Your task to perform on an android device: turn off improve location accuracy Image 0: 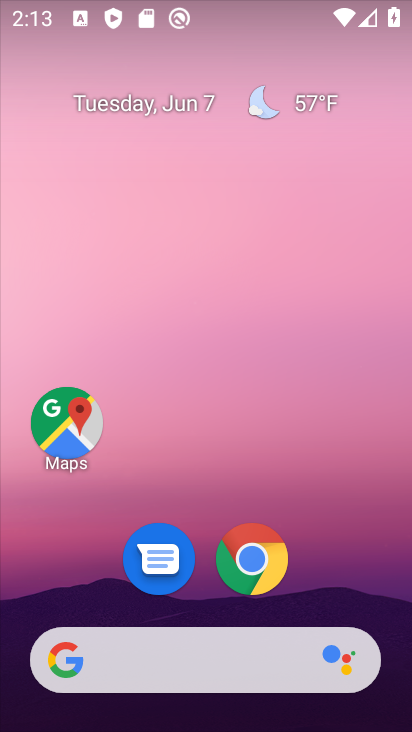
Step 0: click (209, 177)
Your task to perform on an android device: turn off improve location accuracy Image 1: 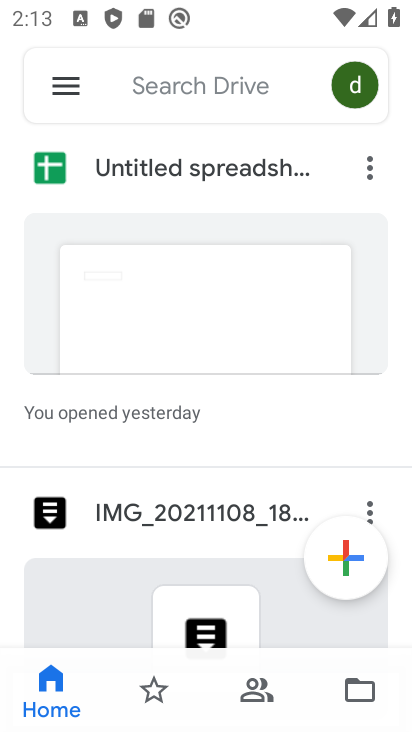
Step 1: press home button
Your task to perform on an android device: turn off improve location accuracy Image 2: 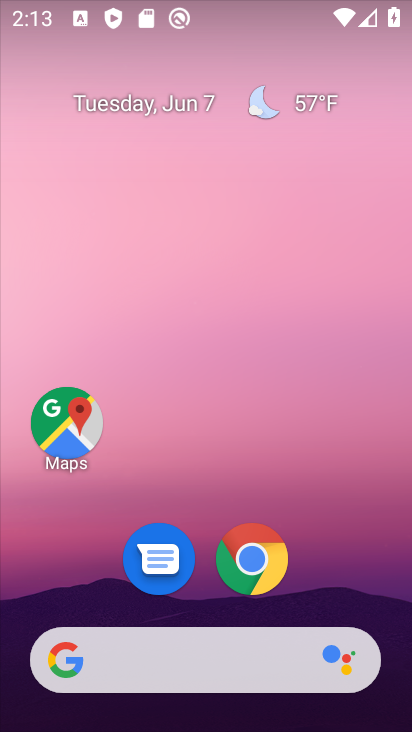
Step 2: drag from (21, 634) to (264, 177)
Your task to perform on an android device: turn off improve location accuracy Image 3: 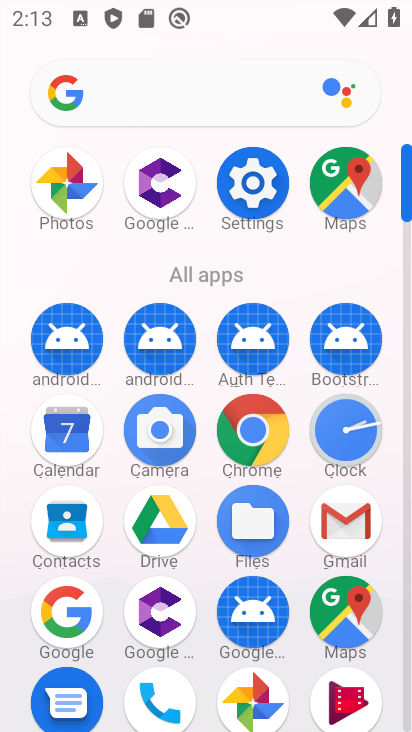
Step 3: click (257, 188)
Your task to perform on an android device: turn off improve location accuracy Image 4: 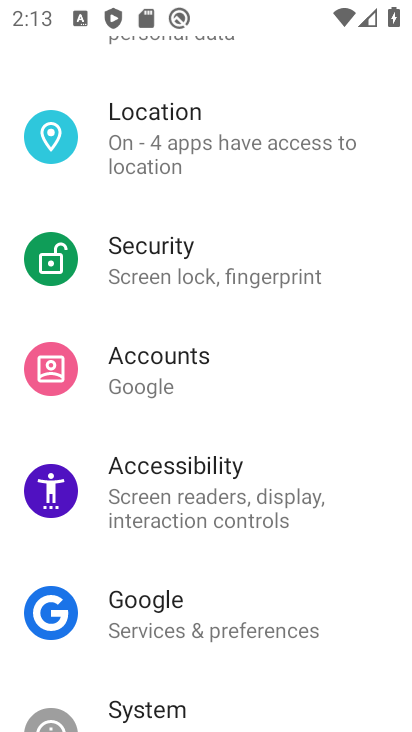
Step 4: click (179, 147)
Your task to perform on an android device: turn off improve location accuracy Image 5: 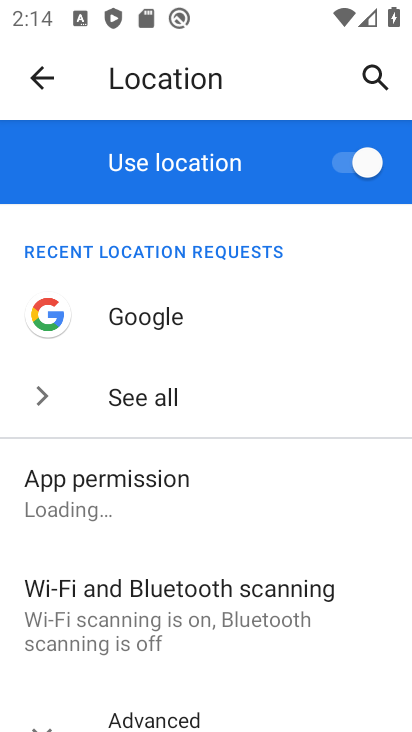
Step 5: drag from (37, 463) to (143, 242)
Your task to perform on an android device: turn off improve location accuracy Image 6: 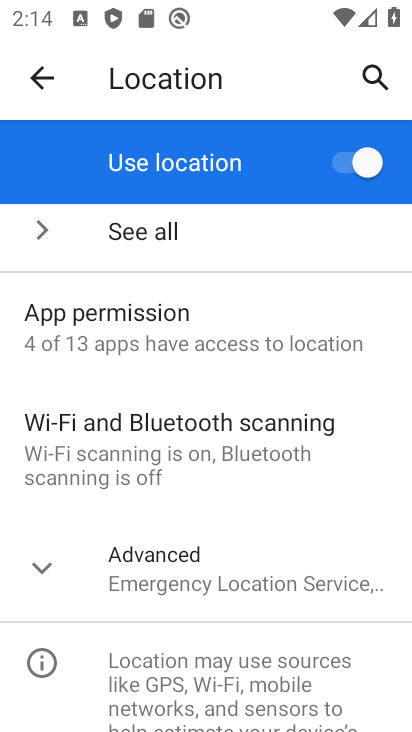
Step 6: click (154, 566)
Your task to perform on an android device: turn off improve location accuracy Image 7: 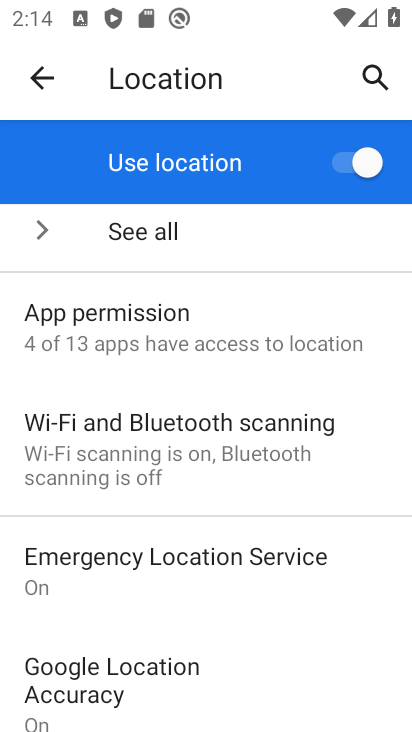
Step 7: drag from (8, 508) to (99, 307)
Your task to perform on an android device: turn off improve location accuracy Image 8: 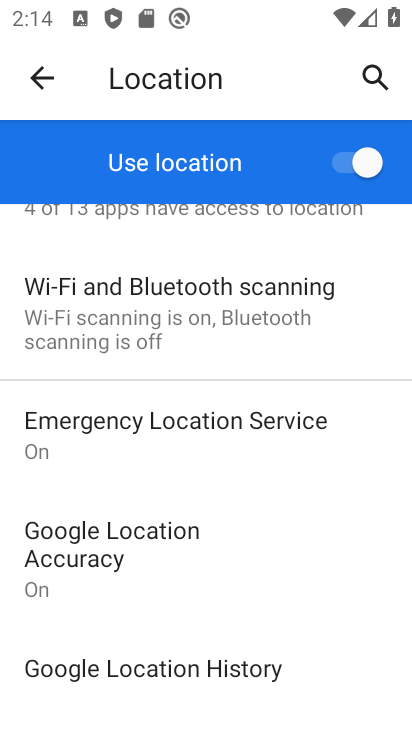
Step 8: click (90, 564)
Your task to perform on an android device: turn off improve location accuracy Image 9: 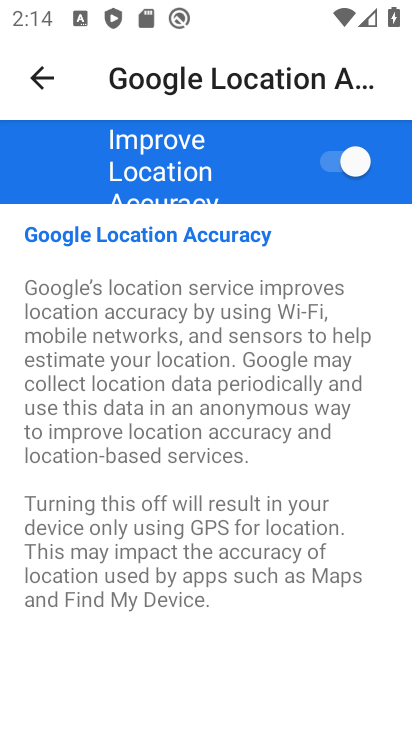
Step 9: click (368, 165)
Your task to perform on an android device: turn off improve location accuracy Image 10: 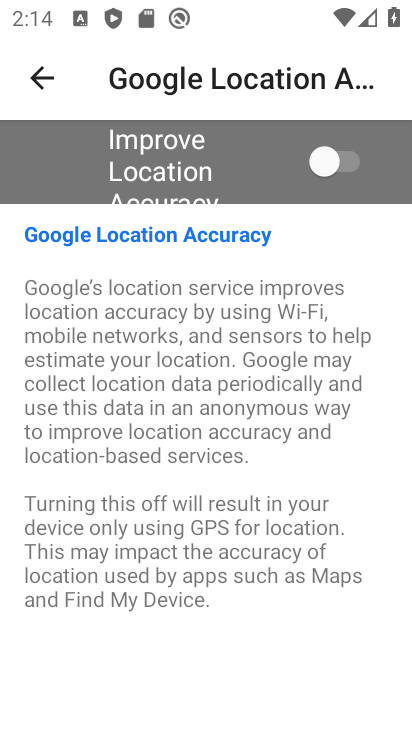
Step 10: task complete